Your task to perform on an android device: empty trash in the gmail app Image 0: 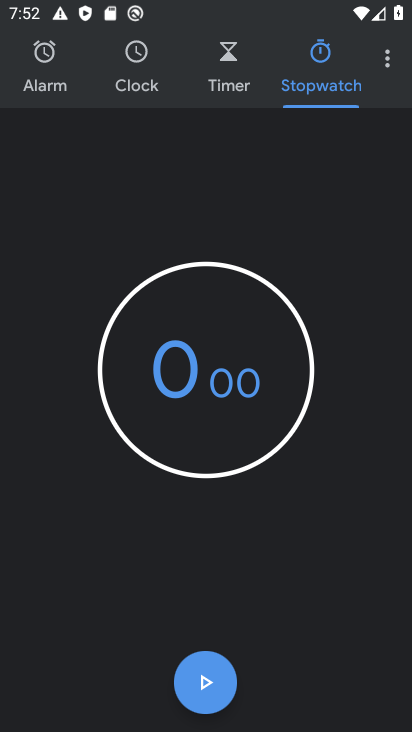
Step 0: press home button
Your task to perform on an android device: empty trash in the gmail app Image 1: 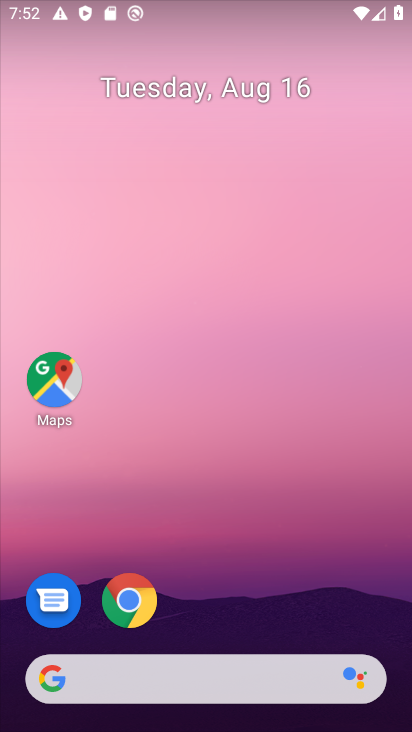
Step 1: drag from (241, 668) to (352, 34)
Your task to perform on an android device: empty trash in the gmail app Image 2: 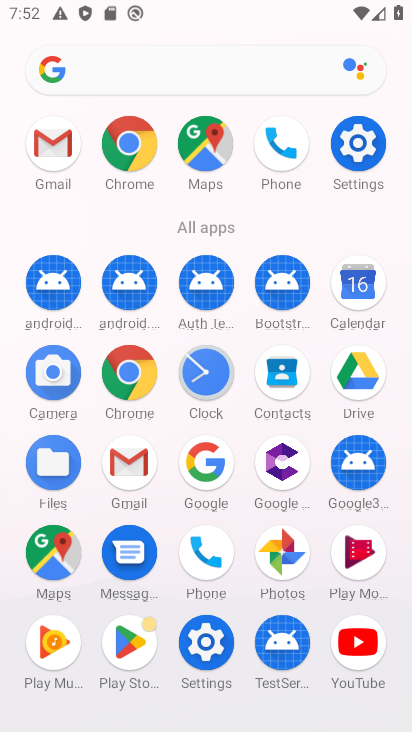
Step 2: click (51, 148)
Your task to perform on an android device: empty trash in the gmail app Image 3: 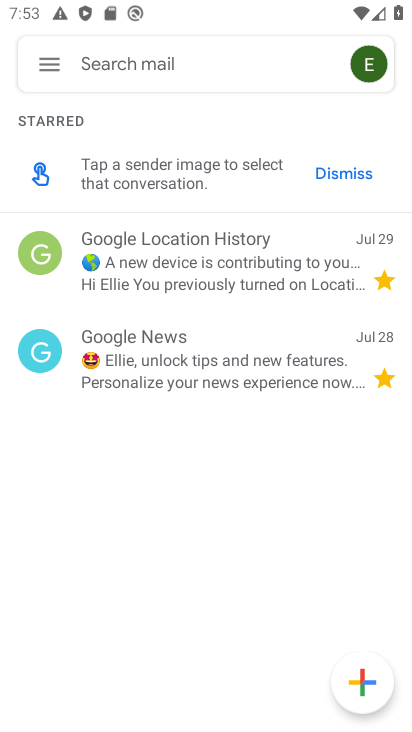
Step 3: click (61, 60)
Your task to perform on an android device: empty trash in the gmail app Image 4: 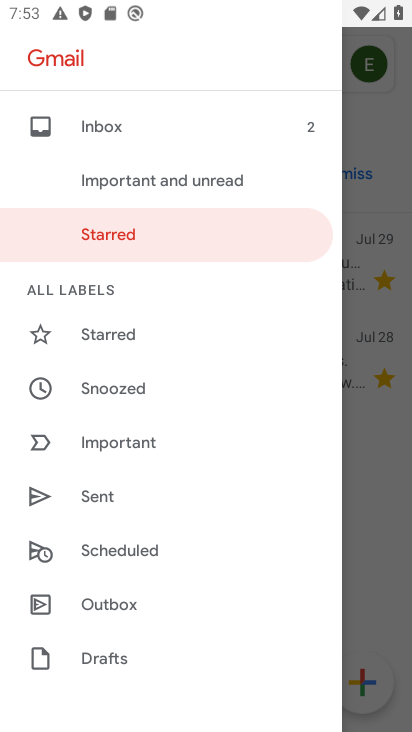
Step 4: drag from (142, 650) to (256, 319)
Your task to perform on an android device: empty trash in the gmail app Image 5: 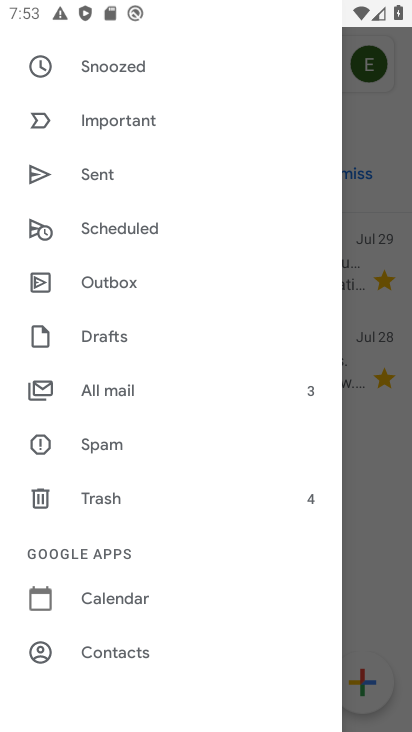
Step 5: click (94, 504)
Your task to perform on an android device: empty trash in the gmail app Image 6: 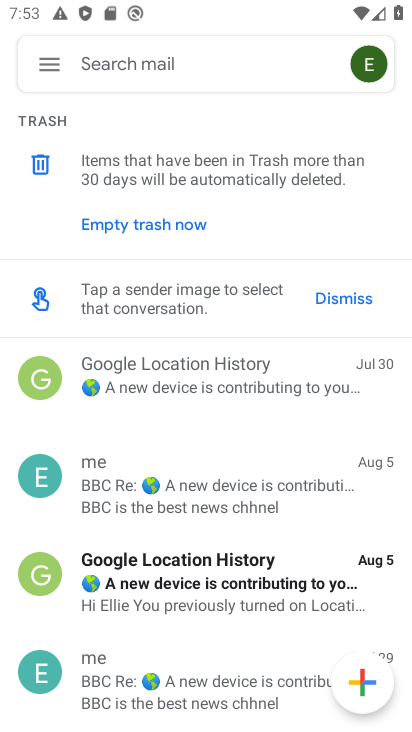
Step 6: click (143, 223)
Your task to perform on an android device: empty trash in the gmail app Image 7: 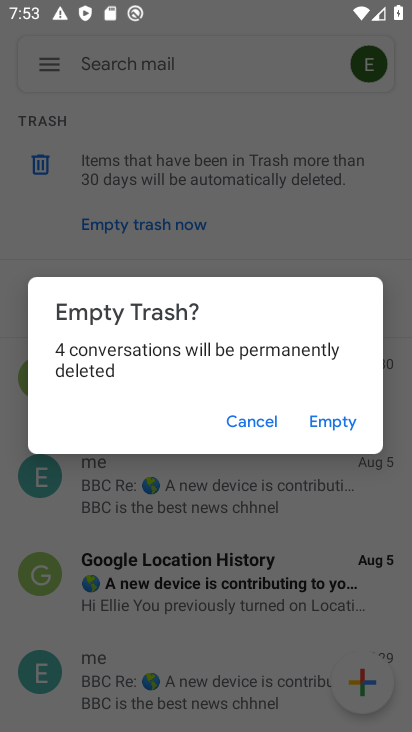
Step 7: click (329, 433)
Your task to perform on an android device: empty trash in the gmail app Image 8: 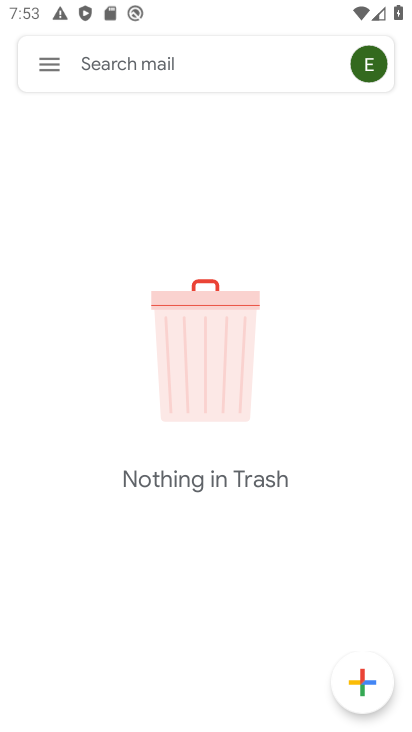
Step 8: task complete